Your task to perform on an android device: change the clock style Image 0: 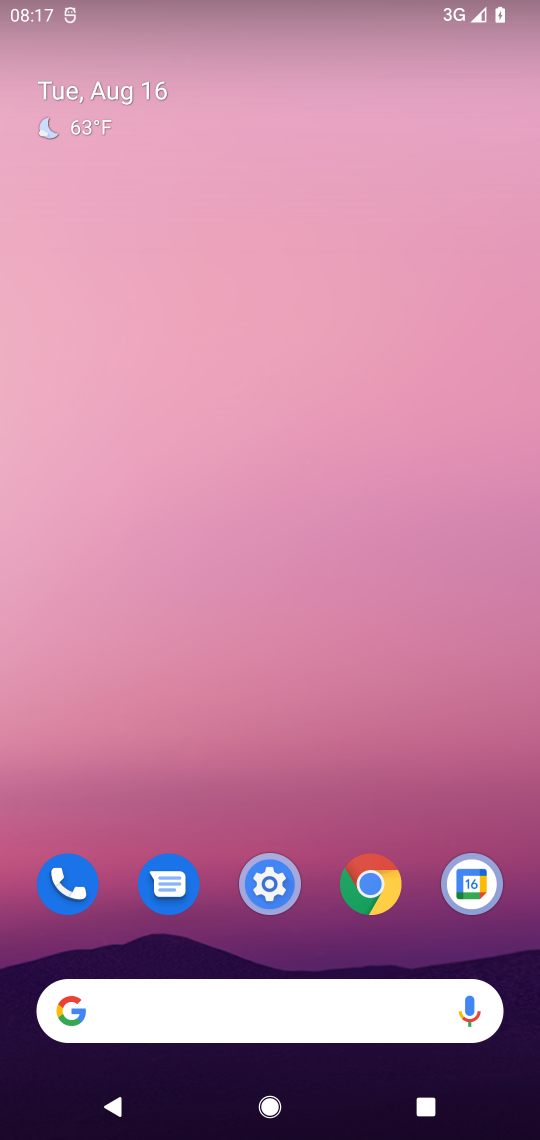
Step 0: press home button
Your task to perform on an android device: change the clock style Image 1: 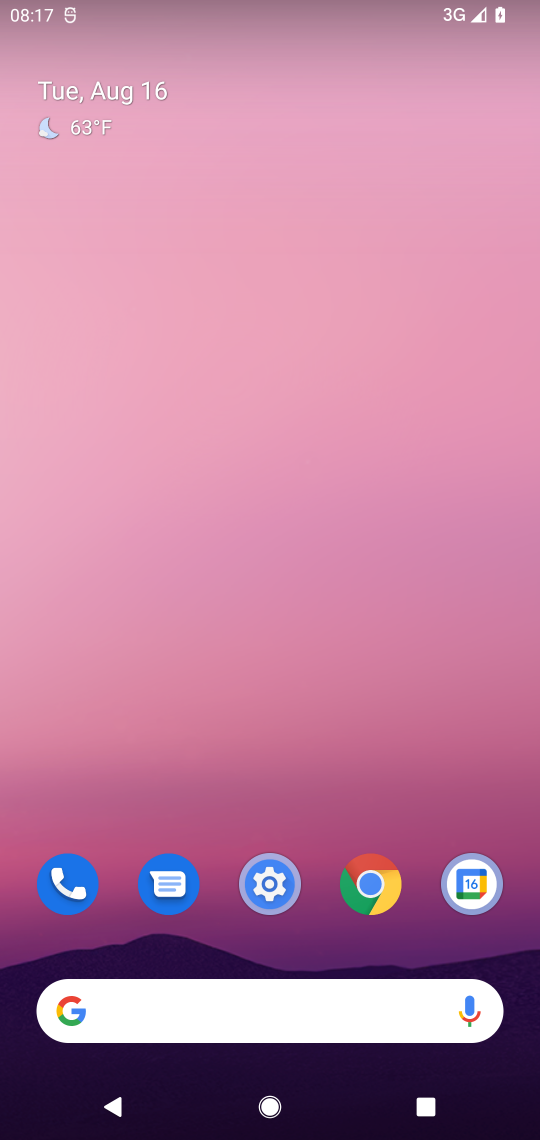
Step 1: drag from (385, 770) to (345, 134)
Your task to perform on an android device: change the clock style Image 2: 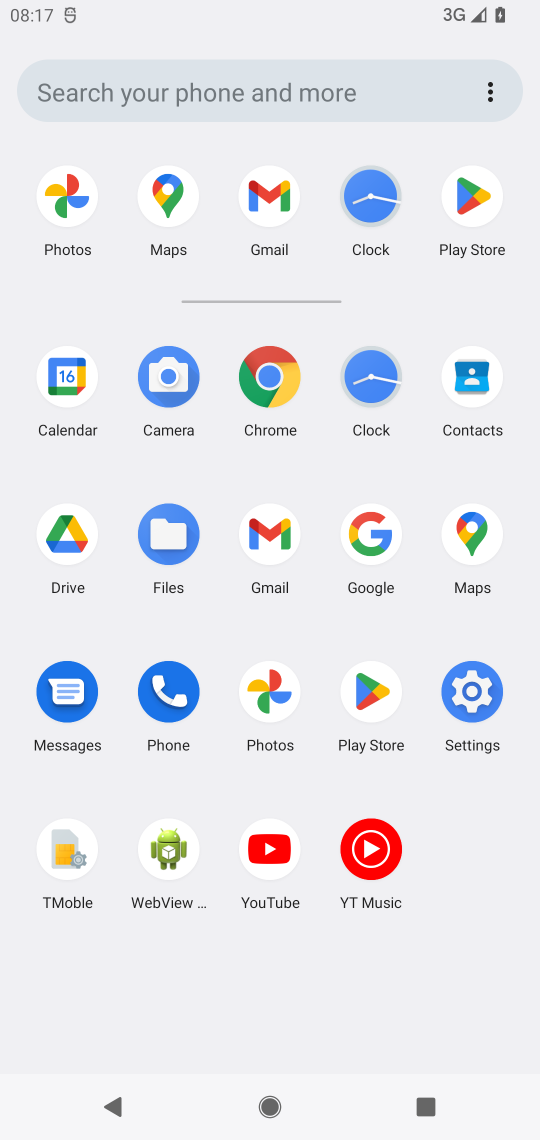
Step 2: click (358, 198)
Your task to perform on an android device: change the clock style Image 3: 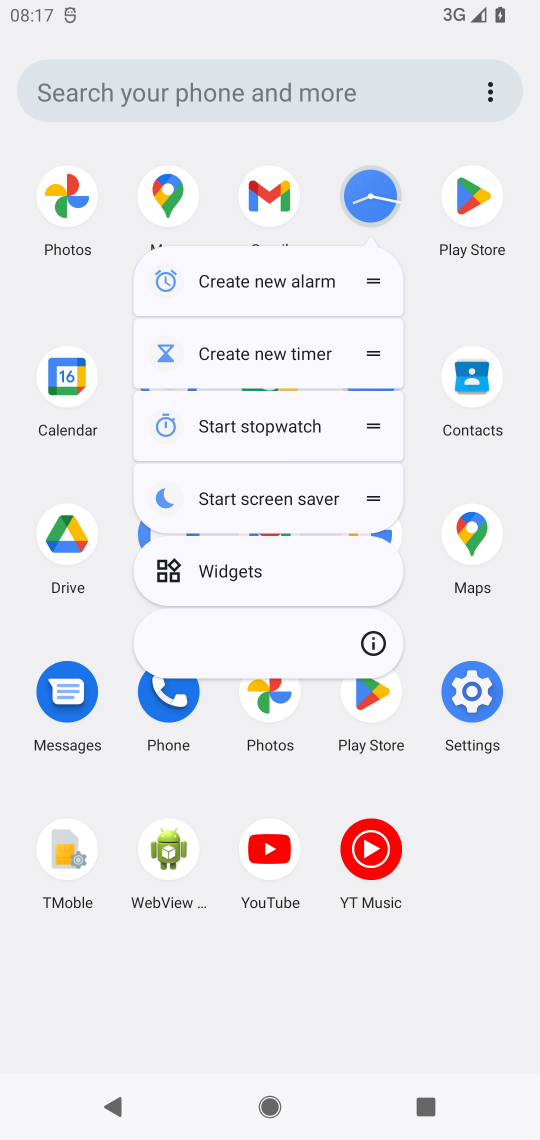
Step 3: click (374, 196)
Your task to perform on an android device: change the clock style Image 4: 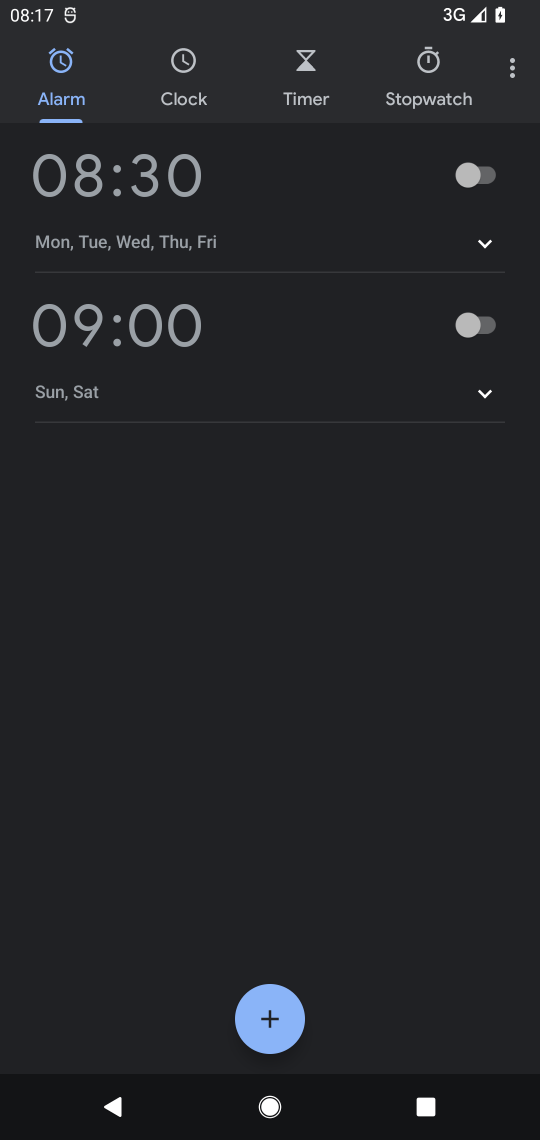
Step 4: click (510, 73)
Your task to perform on an android device: change the clock style Image 5: 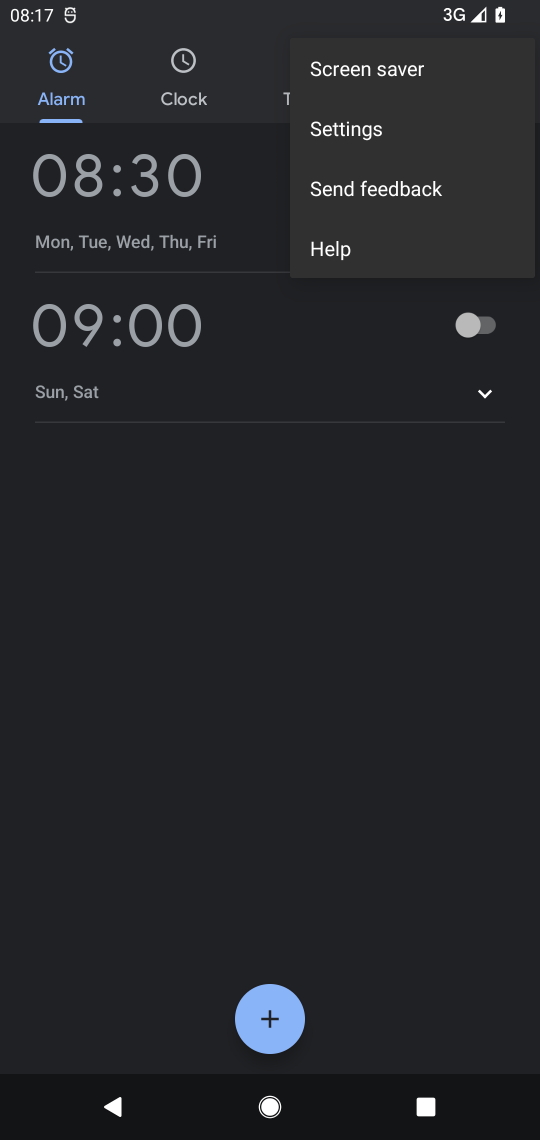
Step 5: click (353, 122)
Your task to perform on an android device: change the clock style Image 6: 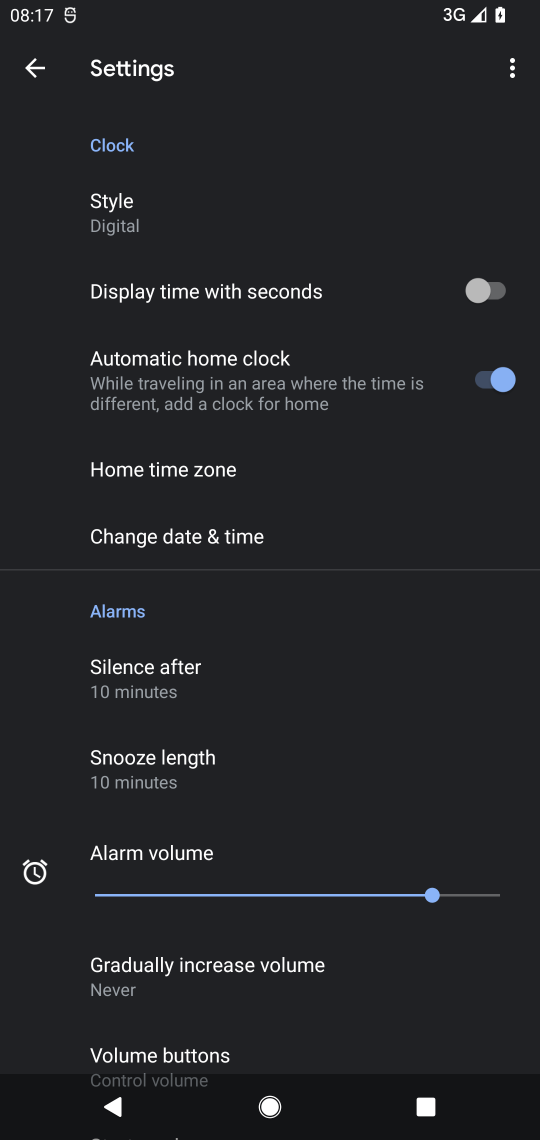
Step 6: drag from (374, 1014) to (321, 487)
Your task to perform on an android device: change the clock style Image 7: 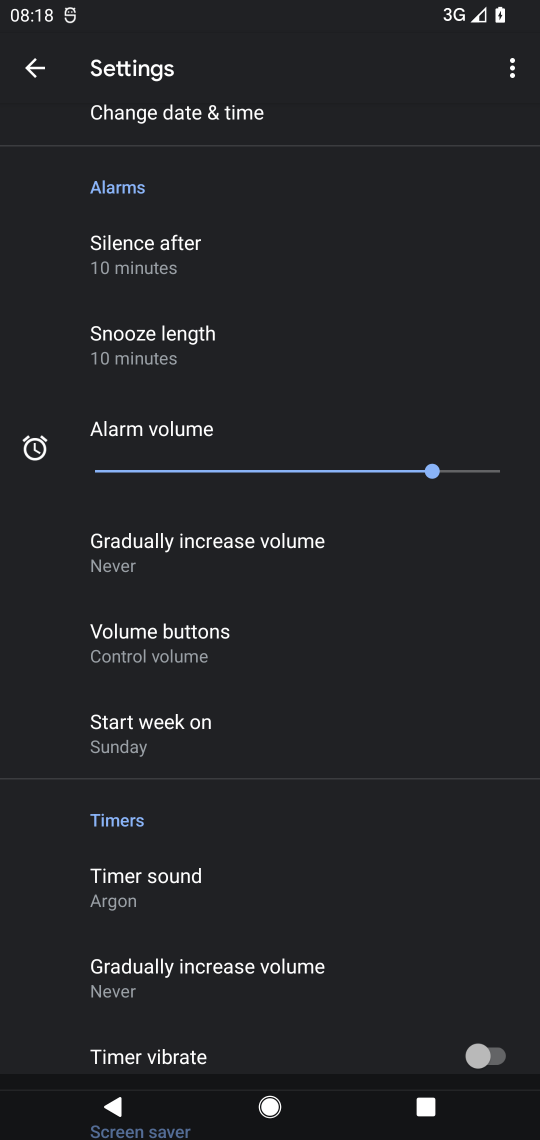
Step 7: drag from (265, 842) to (254, 415)
Your task to perform on an android device: change the clock style Image 8: 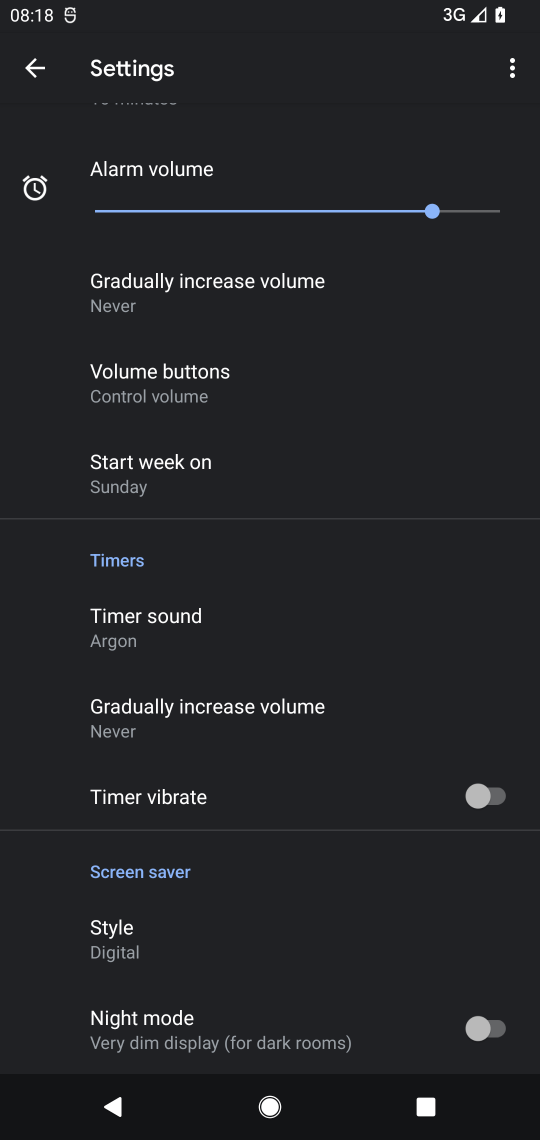
Step 8: click (119, 953)
Your task to perform on an android device: change the clock style Image 9: 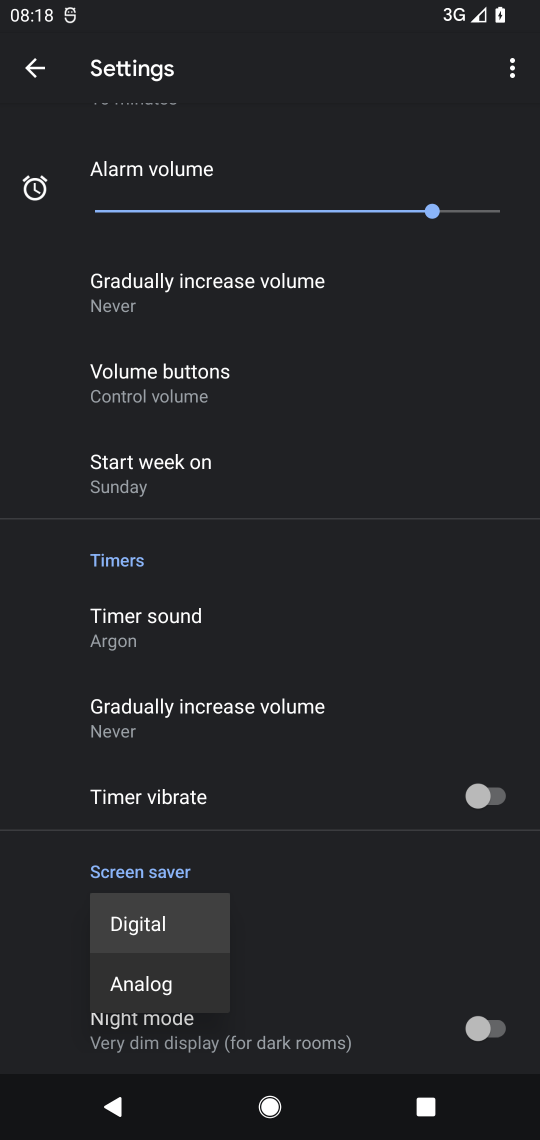
Step 9: drag from (318, 132) to (283, 965)
Your task to perform on an android device: change the clock style Image 10: 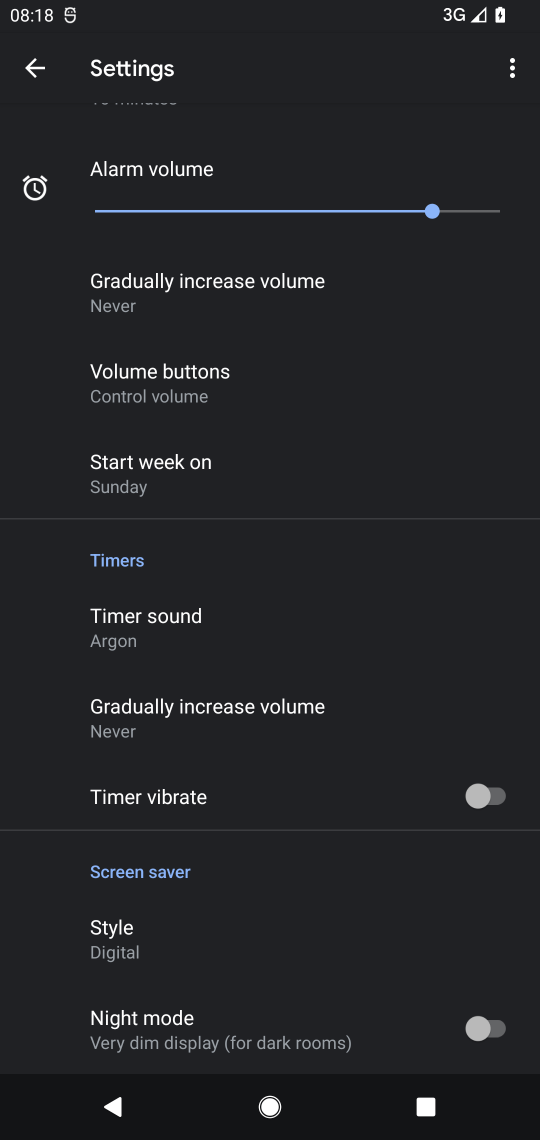
Step 10: drag from (420, 276) to (445, 1040)
Your task to perform on an android device: change the clock style Image 11: 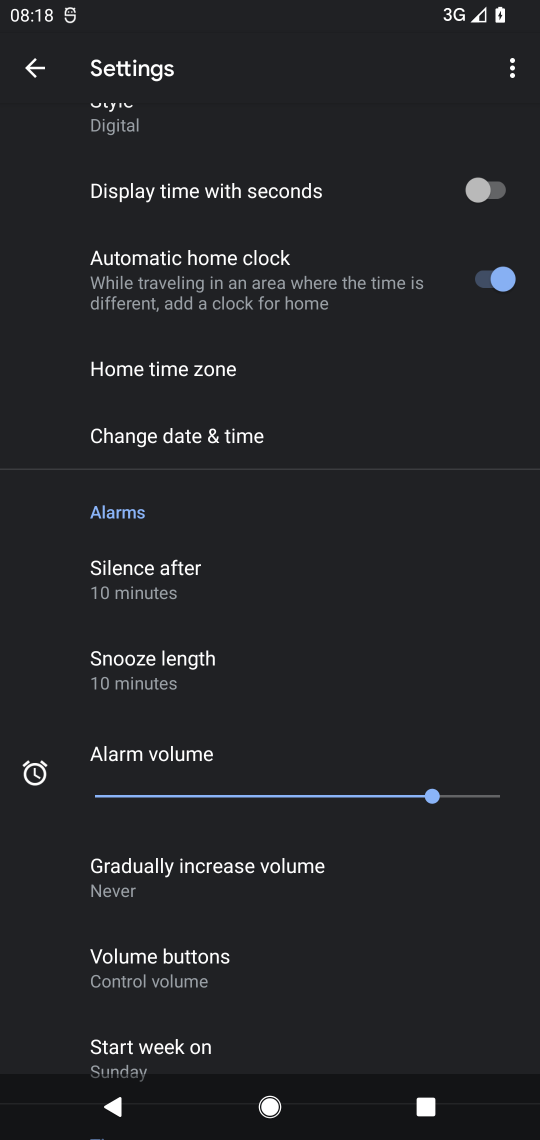
Step 11: drag from (411, 449) to (393, 729)
Your task to perform on an android device: change the clock style Image 12: 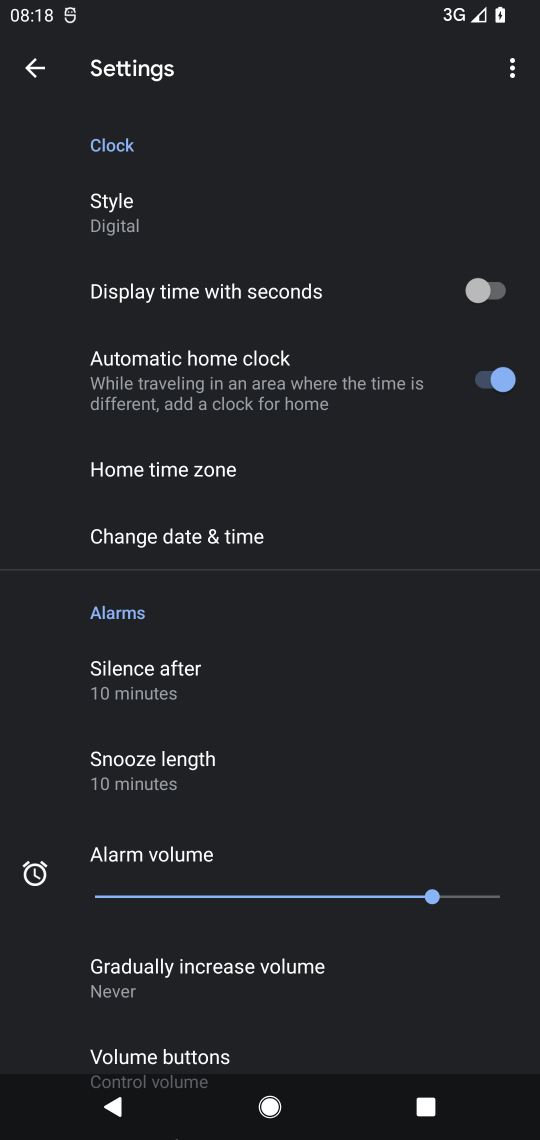
Step 12: click (127, 208)
Your task to perform on an android device: change the clock style Image 13: 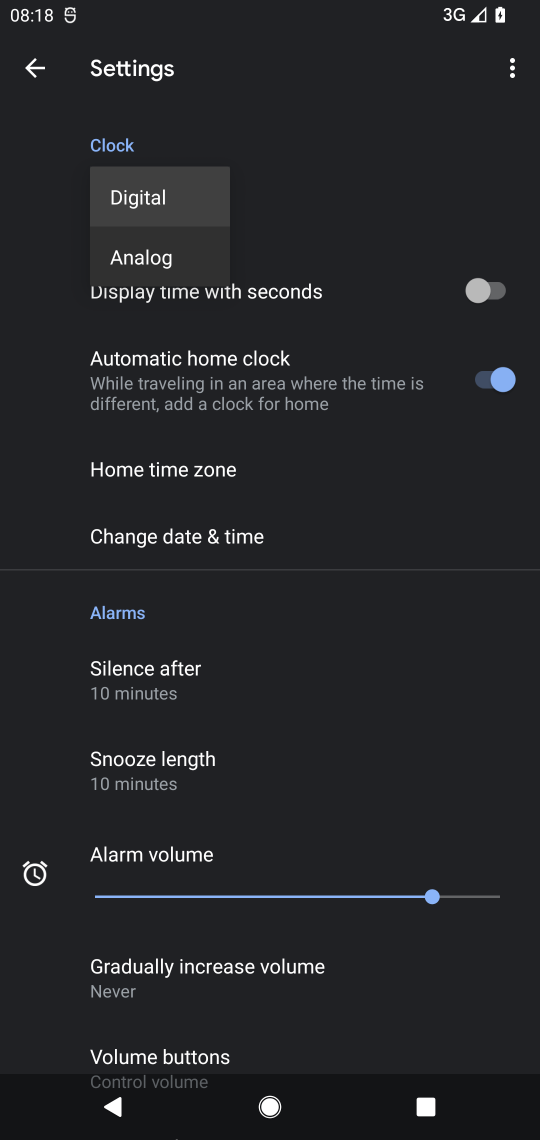
Step 13: click (165, 261)
Your task to perform on an android device: change the clock style Image 14: 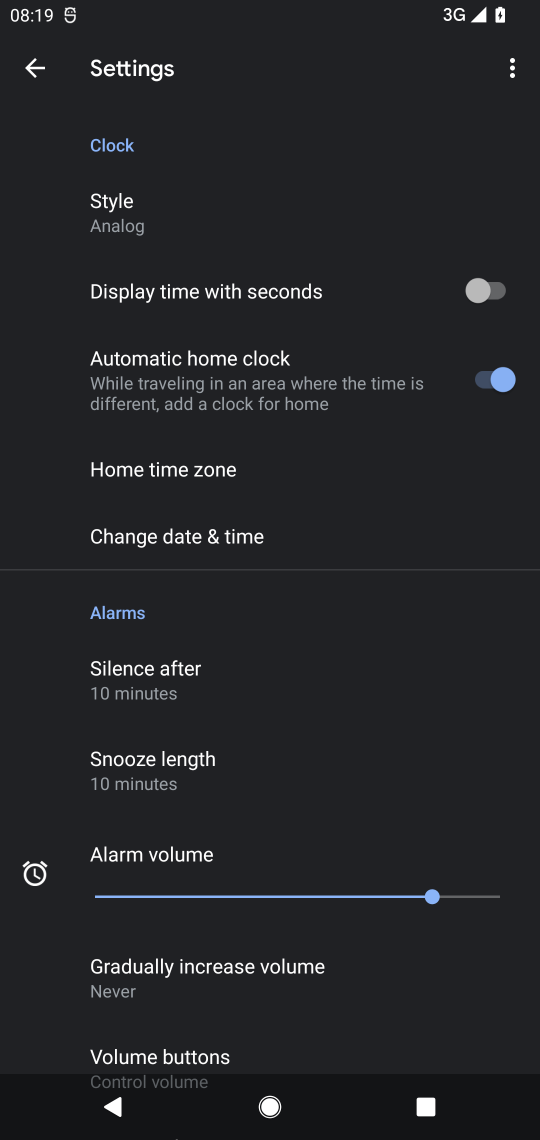
Step 14: task complete